Your task to perform on an android device: Open my contact list Image 0: 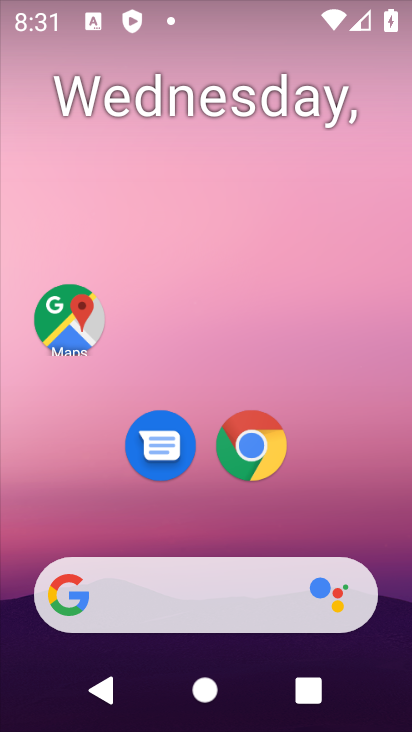
Step 0: drag from (382, 477) to (409, 5)
Your task to perform on an android device: Open my contact list Image 1: 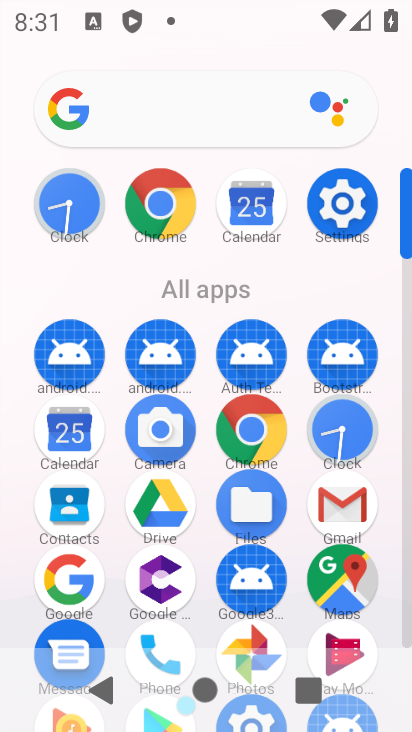
Step 1: drag from (389, 573) to (366, 186)
Your task to perform on an android device: Open my contact list Image 2: 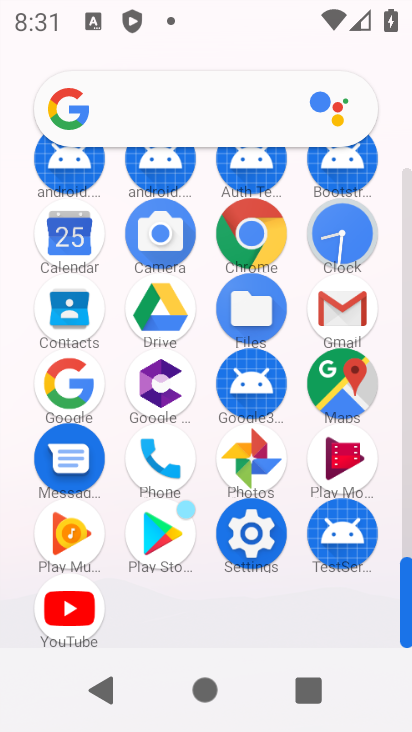
Step 2: click (161, 457)
Your task to perform on an android device: Open my contact list Image 3: 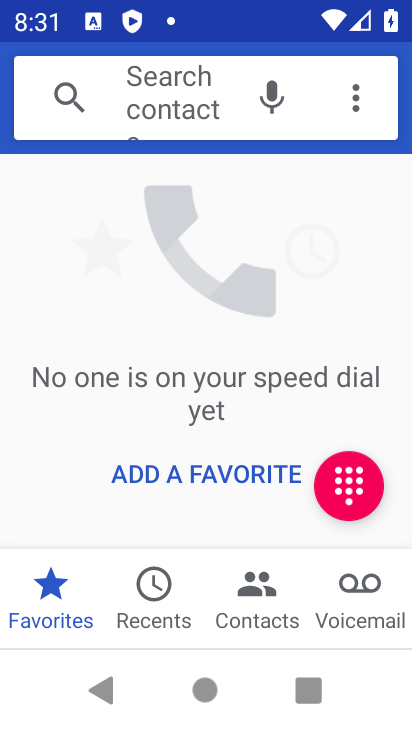
Step 3: click (252, 618)
Your task to perform on an android device: Open my contact list Image 4: 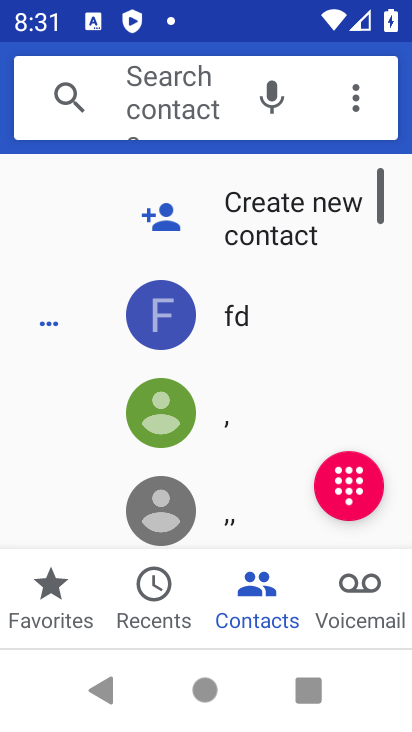
Step 4: task complete